Your task to perform on an android device: Open the phone app and click the voicemail tab. Image 0: 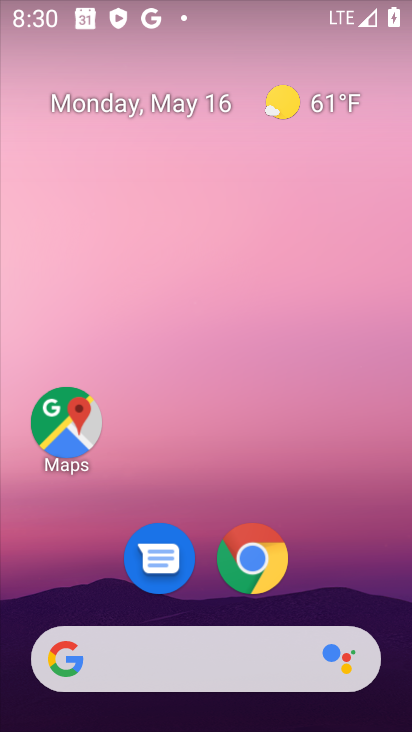
Step 0: drag from (215, 599) to (200, 97)
Your task to perform on an android device: Open the phone app and click the voicemail tab. Image 1: 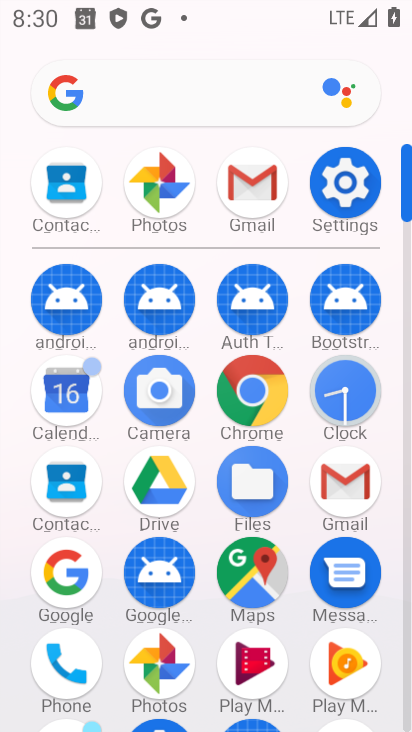
Step 1: drag from (177, 632) to (311, 194)
Your task to perform on an android device: Open the phone app and click the voicemail tab. Image 2: 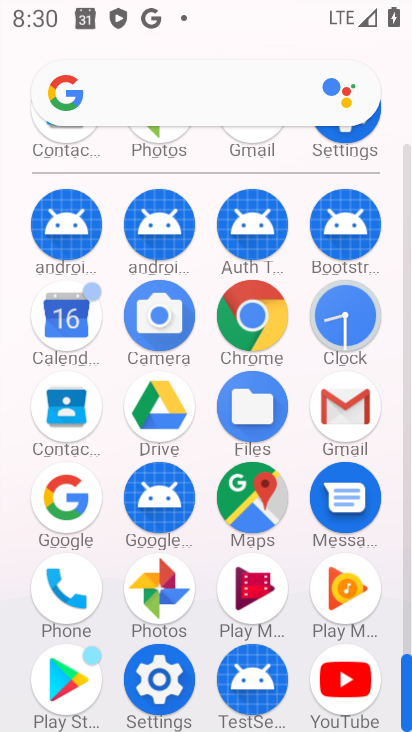
Step 2: click (80, 600)
Your task to perform on an android device: Open the phone app and click the voicemail tab. Image 3: 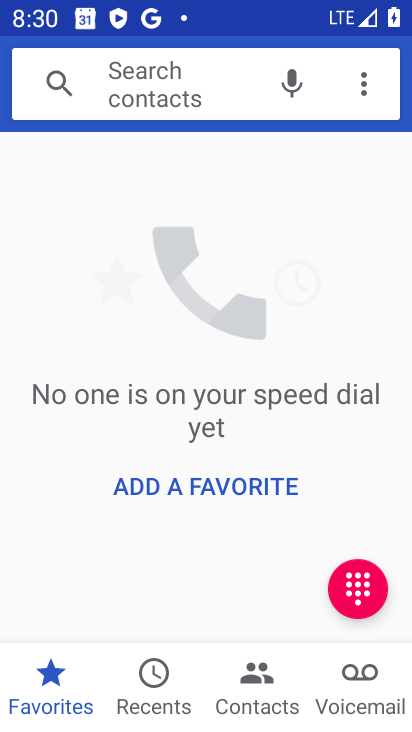
Step 3: click (344, 688)
Your task to perform on an android device: Open the phone app and click the voicemail tab. Image 4: 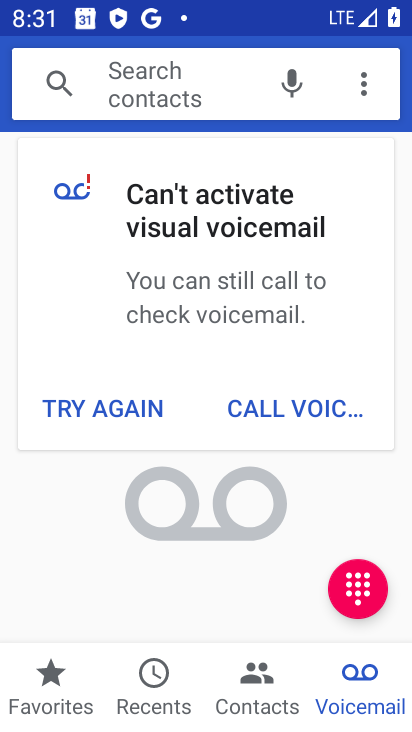
Step 4: task complete